Your task to perform on an android device: Do I have any events today? Image 0: 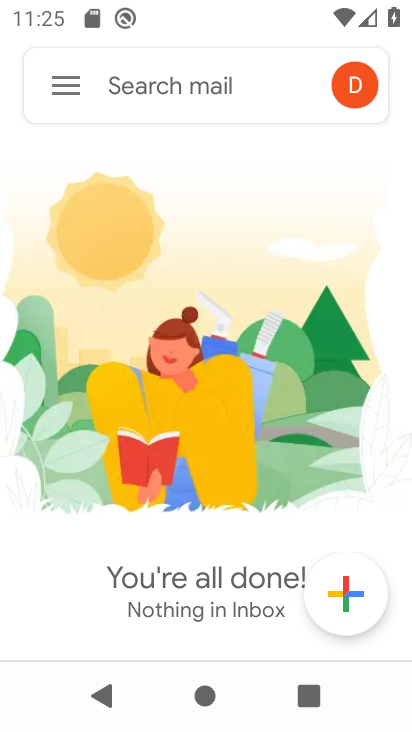
Step 0: press back button
Your task to perform on an android device: Do I have any events today? Image 1: 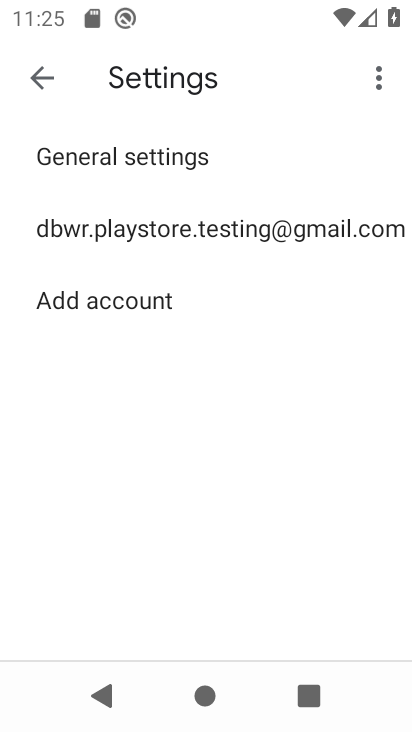
Step 1: press back button
Your task to perform on an android device: Do I have any events today? Image 2: 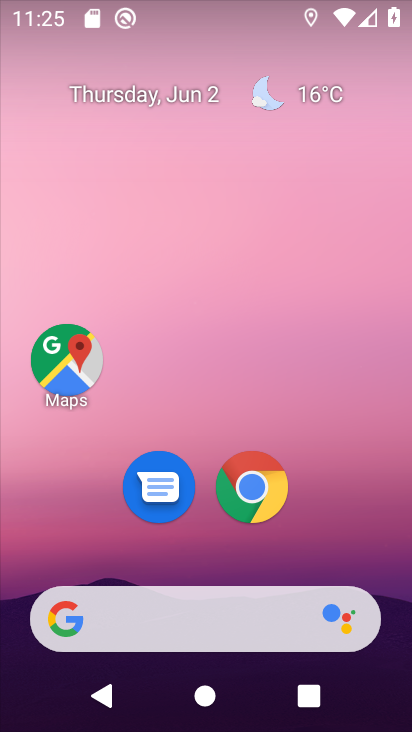
Step 2: drag from (322, 518) to (209, 112)
Your task to perform on an android device: Do I have any events today? Image 3: 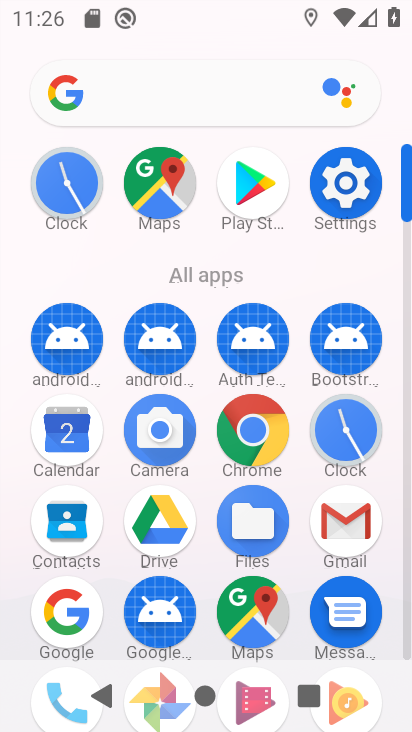
Step 3: drag from (203, 494) to (217, 255)
Your task to perform on an android device: Do I have any events today? Image 4: 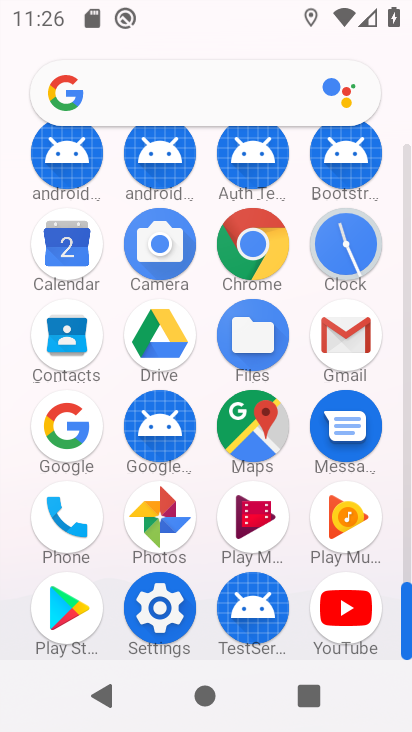
Step 4: click (71, 248)
Your task to perform on an android device: Do I have any events today? Image 5: 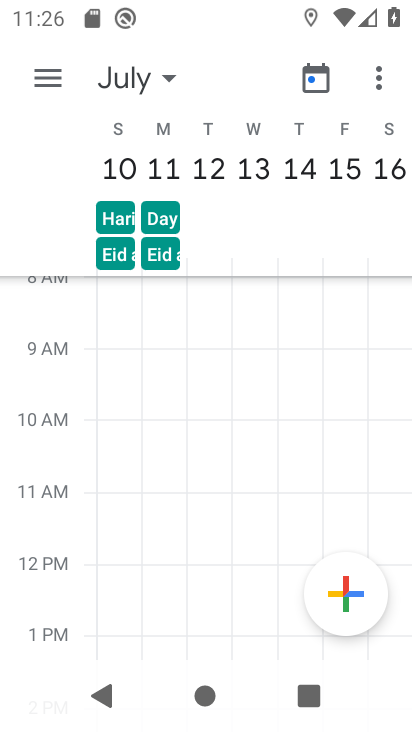
Step 5: click (323, 80)
Your task to perform on an android device: Do I have any events today? Image 6: 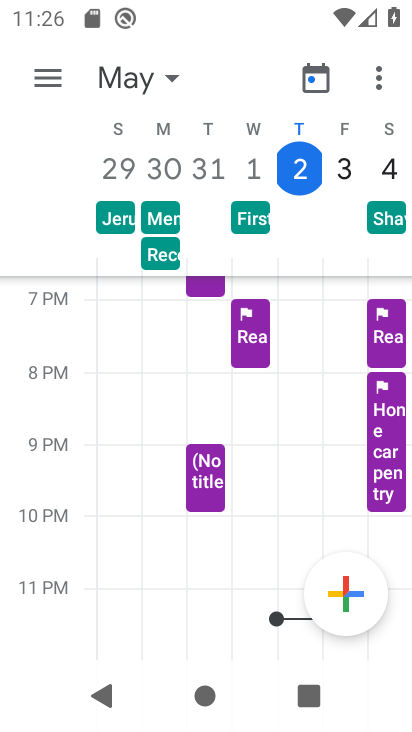
Step 6: click (45, 73)
Your task to perform on an android device: Do I have any events today? Image 7: 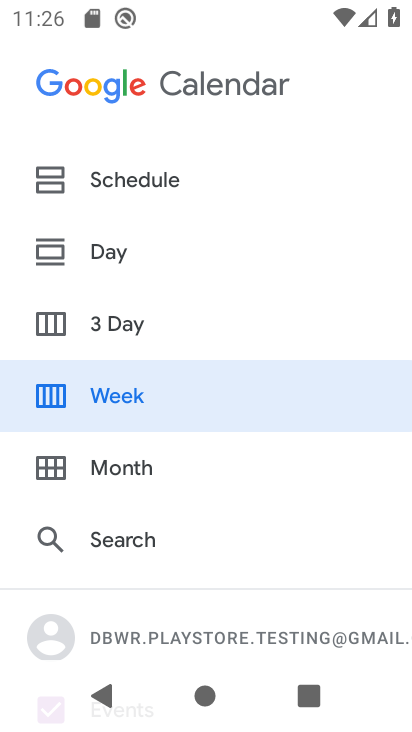
Step 7: click (116, 178)
Your task to perform on an android device: Do I have any events today? Image 8: 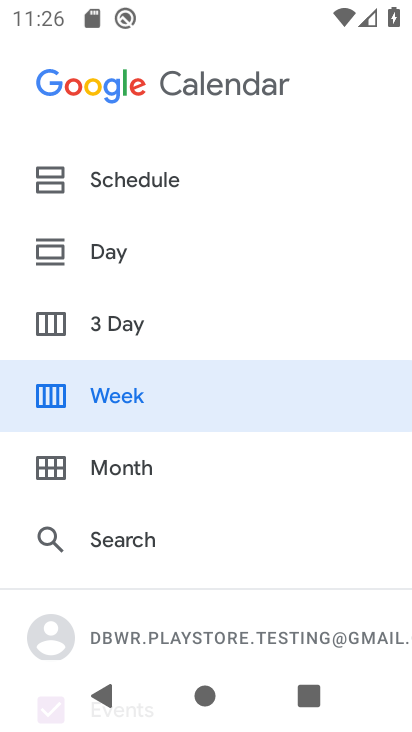
Step 8: click (116, 178)
Your task to perform on an android device: Do I have any events today? Image 9: 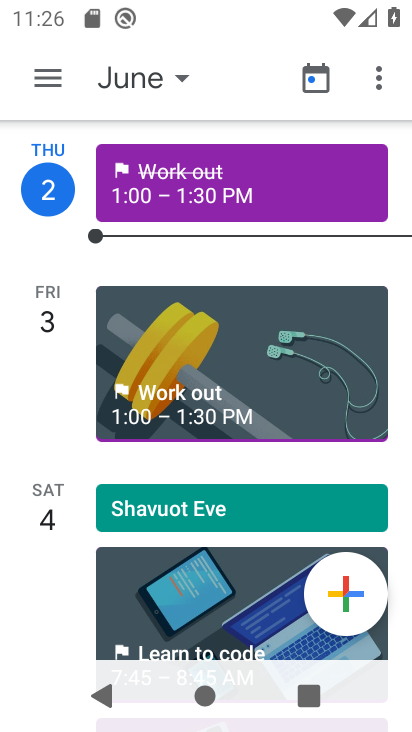
Step 9: click (193, 187)
Your task to perform on an android device: Do I have any events today? Image 10: 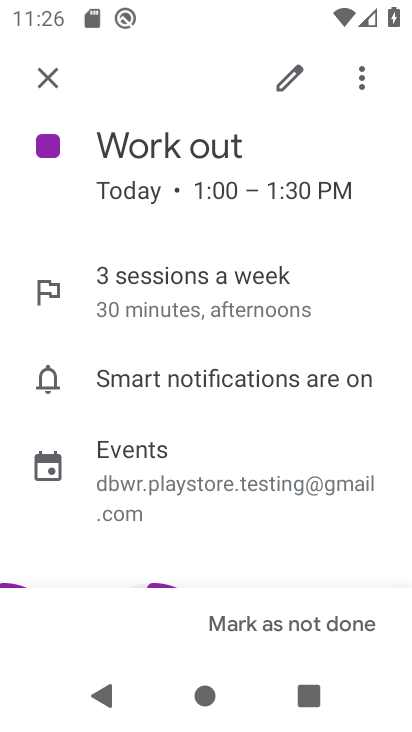
Step 10: task complete